Your task to perform on an android device: open wifi settings Image 0: 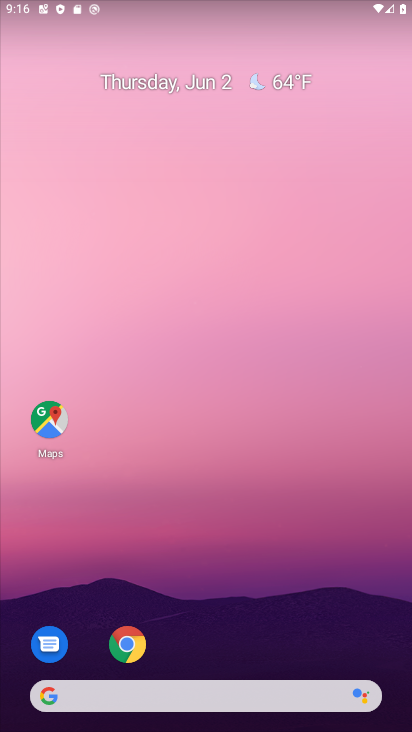
Step 0: press home button
Your task to perform on an android device: open wifi settings Image 1: 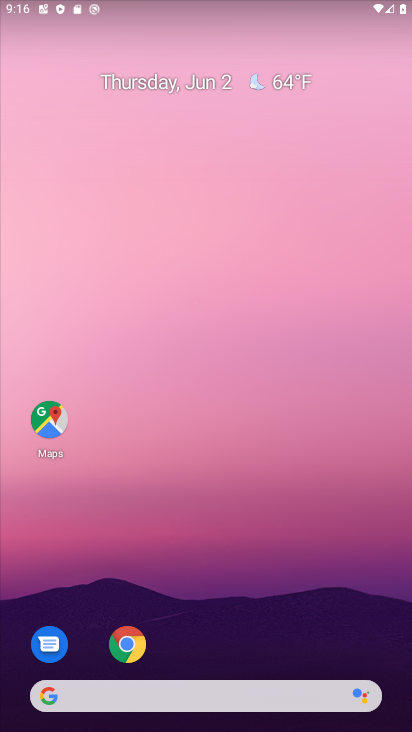
Step 1: drag from (328, 2) to (330, 258)
Your task to perform on an android device: open wifi settings Image 2: 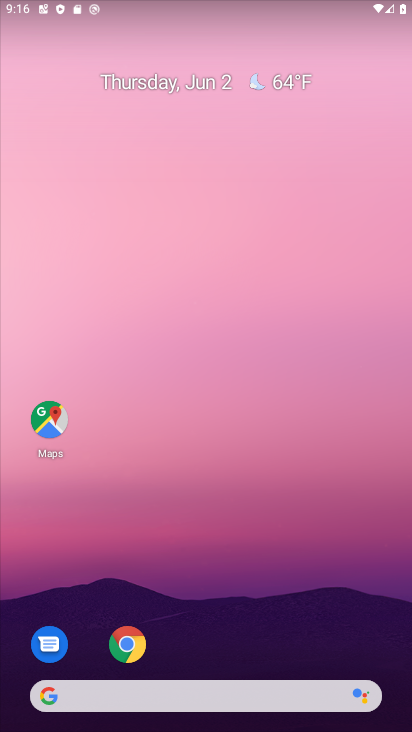
Step 2: drag from (336, 0) to (251, 668)
Your task to perform on an android device: open wifi settings Image 3: 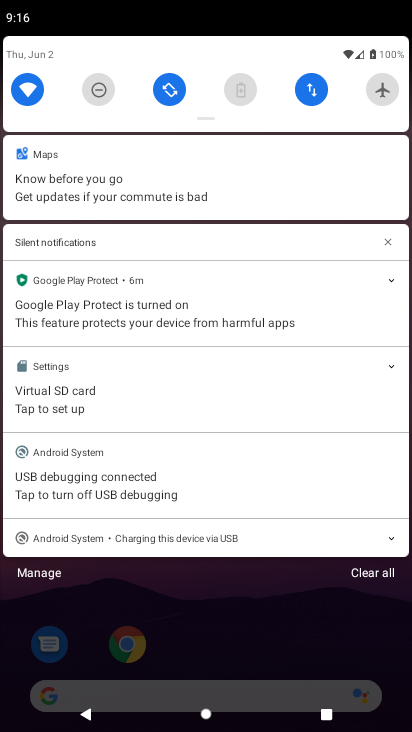
Step 3: click (20, 99)
Your task to perform on an android device: open wifi settings Image 4: 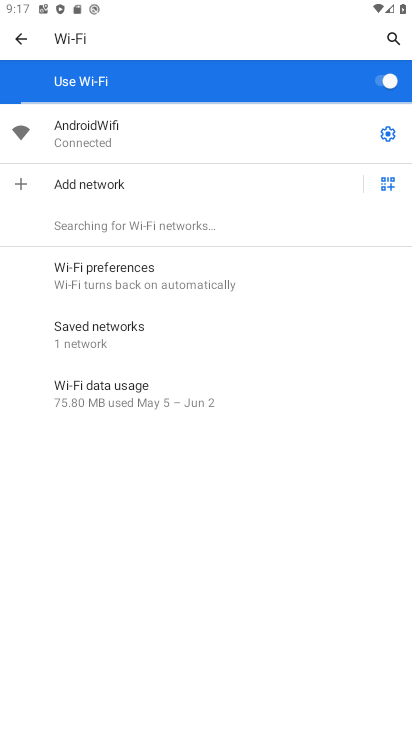
Step 4: task complete